Your task to perform on an android device: create a new album in the google photos Image 0: 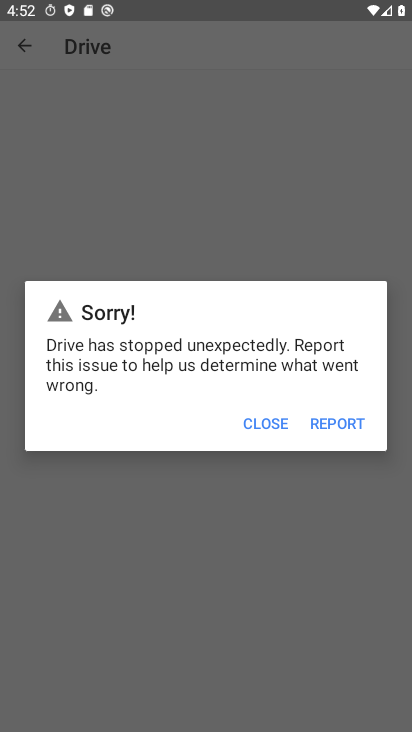
Step 0: click (274, 415)
Your task to perform on an android device: create a new album in the google photos Image 1: 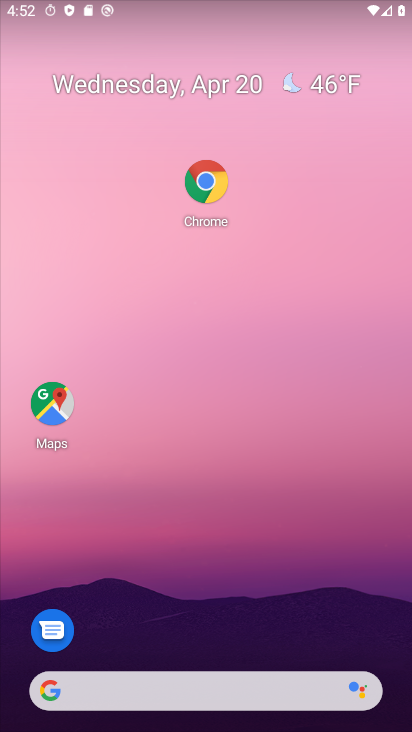
Step 1: press home button
Your task to perform on an android device: create a new album in the google photos Image 2: 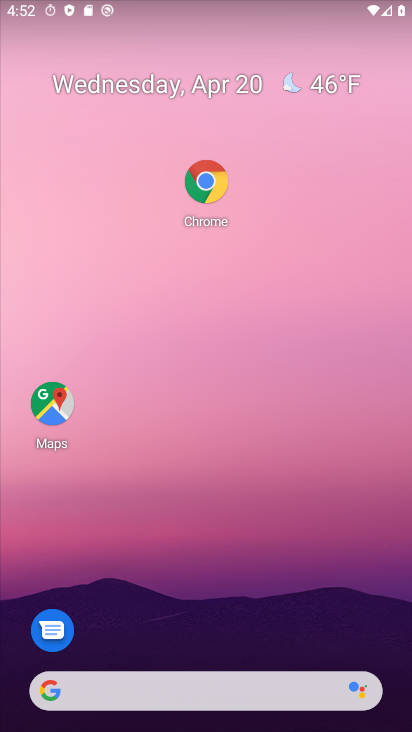
Step 2: drag from (235, 470) to (253, 376)
Your task to perform on an android device: create a new album in the google photos Image 3: 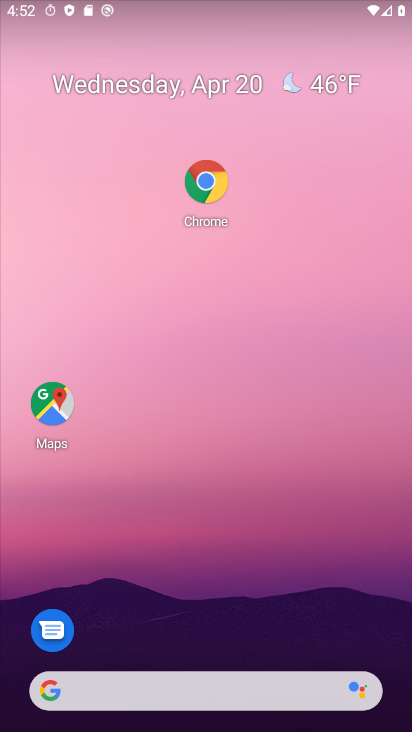
Step 3: drag from (234, 654) to (276, 453)
Your task to perform on an android device: create a new album in the google photos Image 4: 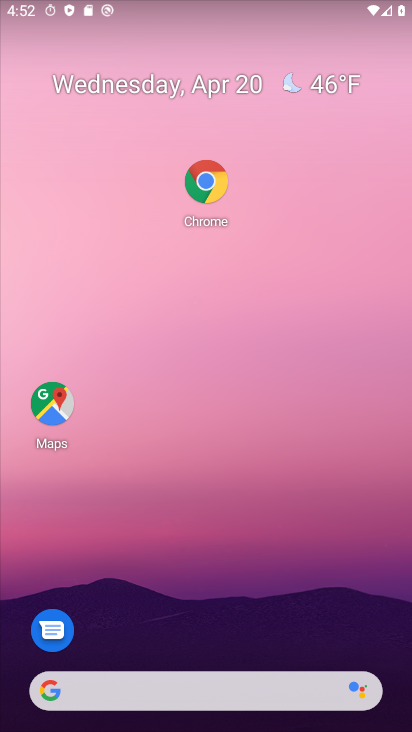
Step 4: drag from (104, 551) to (380, 223)
Your task to perform on an android device: create a new album in the google photos Image 5: 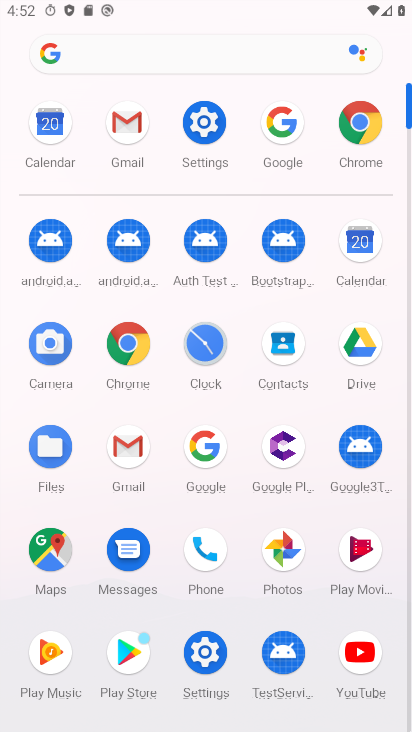
Step 5: click (295, 554)
Your task to perform on an android device: create a new album in the google photos Image 6: 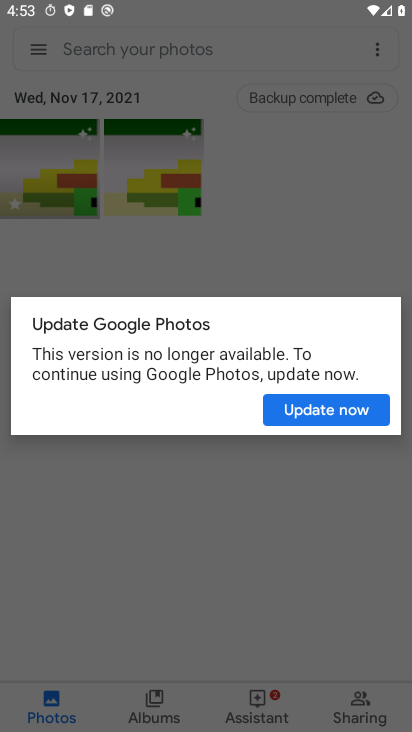
Step 6: click (337, 411)
Your task to perform on an android device: create a new album in the google photos Image 7: 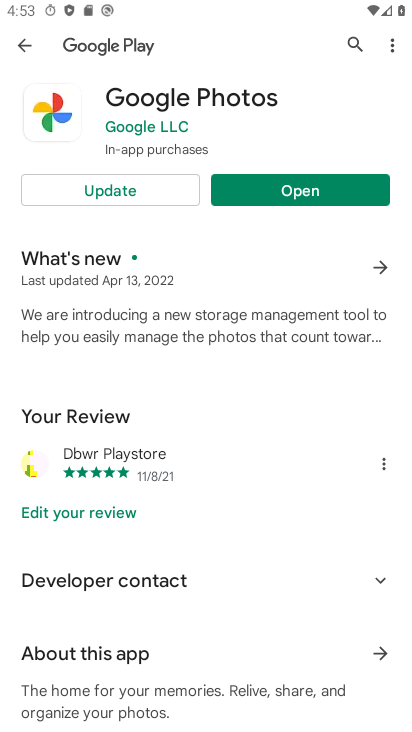
Step 7: click (126, 193)
Your task to perform on an android device: create a new album in the google photos Image 8: 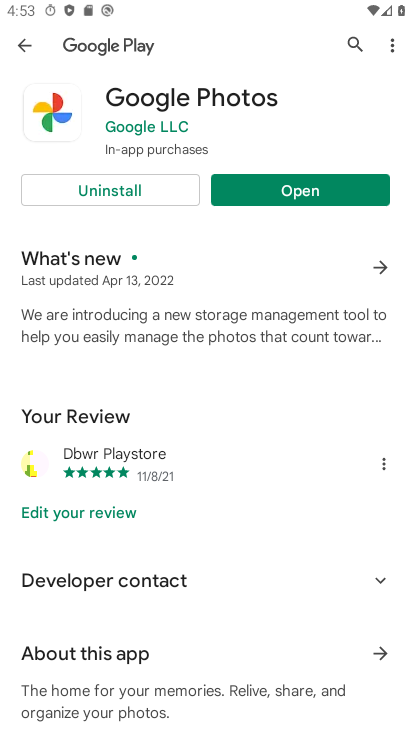
Step 8: click (304, 198)
Your task to perform on an android device: create a new album in the google photos Image 9: 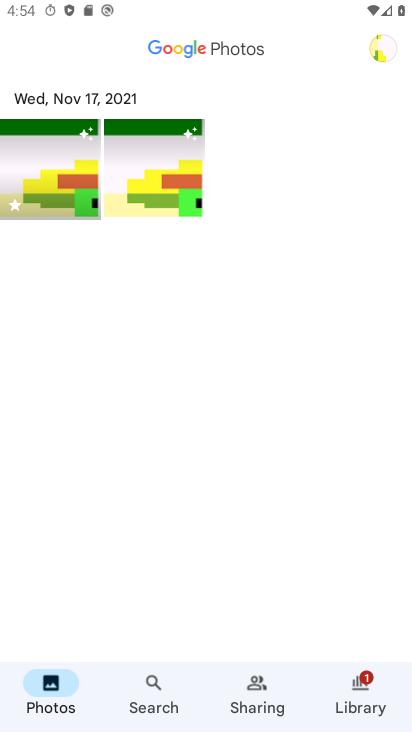
Step 9: click (361, 683)
Your task to perform on an android device: create a new album in the google photos Image 10: 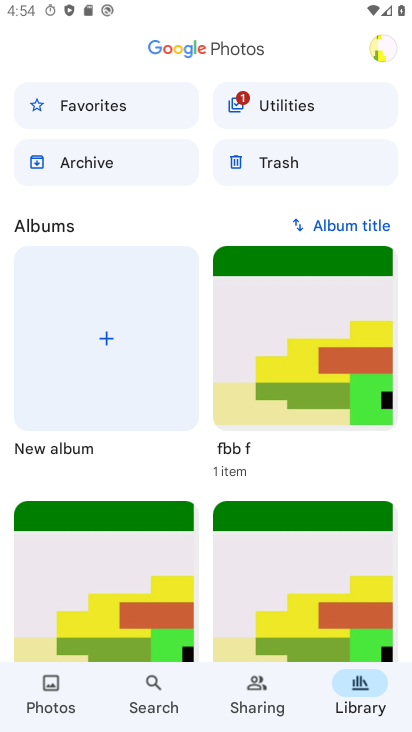
Step 10: drag from (193, 557) to (278, 304)
Your task to perform on an android device: create a new album in the google photos Image 11: 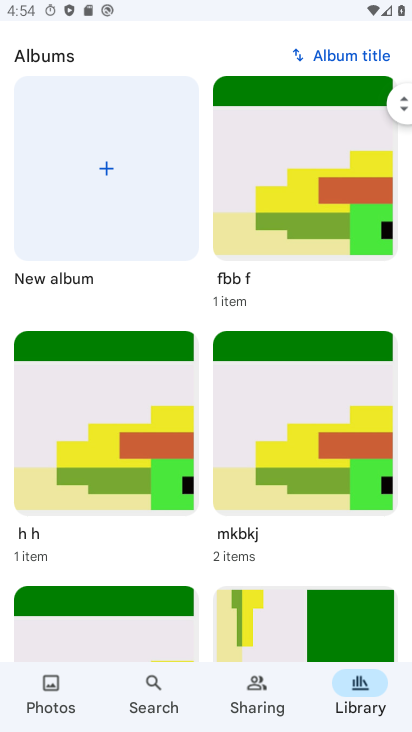
Step 11: click (83, 171)
Your task to perform on an android device: create a new album in the google photos Image 12: 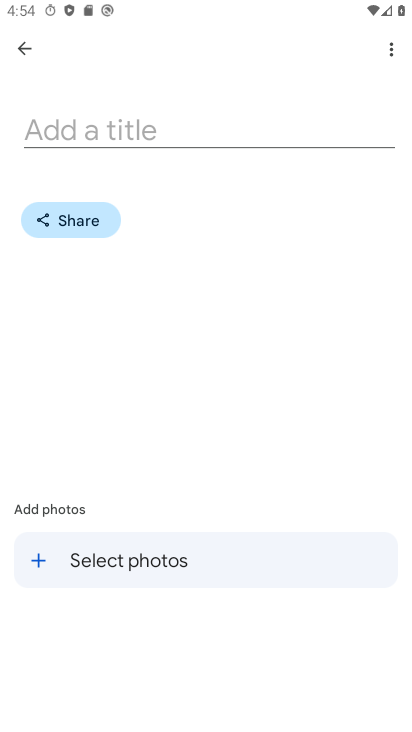
Step 12: click (92, 122)
Your task to perform on an android device: create a new album in the google photos Image 13: 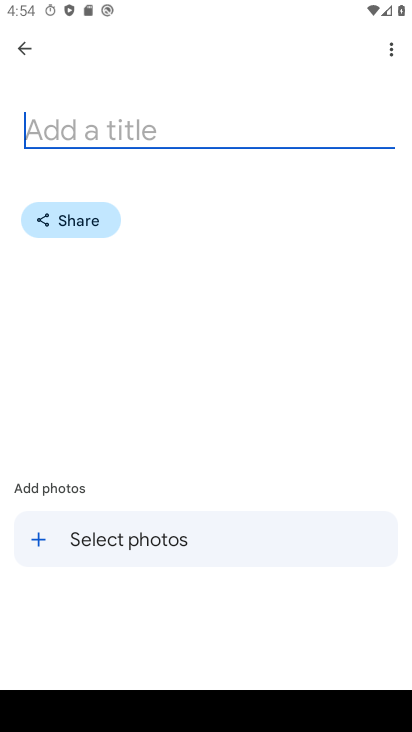
Step 13: type "123"
Your task to perform on an android device: create a new album in the google photos Image 14: 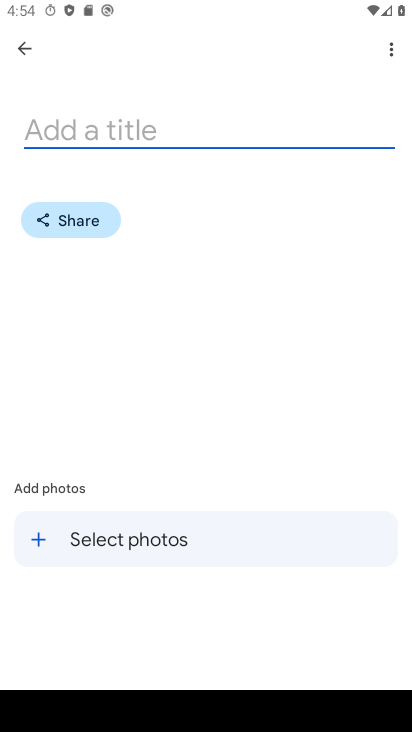
Step 14: click (159, 549)
Your task to perform on an android device: create a new album in the google photos Image 15: 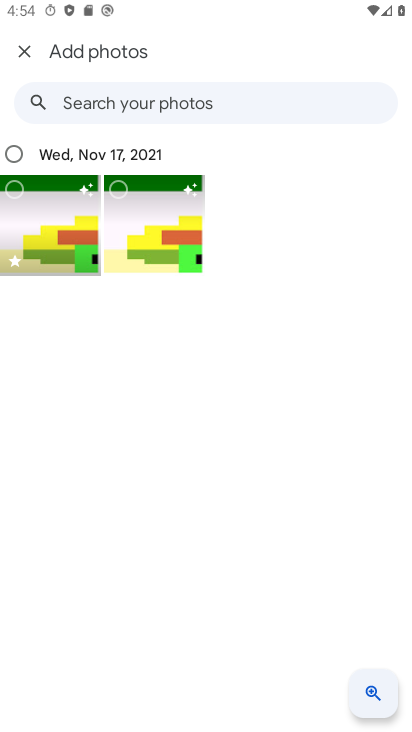
Step 15: click (13, 150)
Your task to perform on an android device: create a new album in the google photos Image 16: 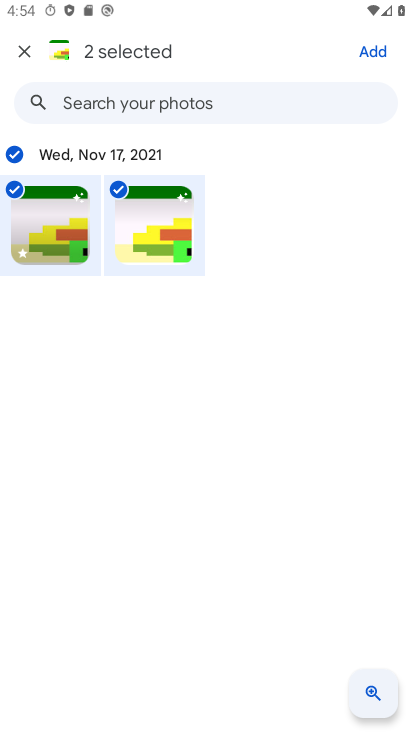
Step 16: click (387, 50)
Your task to perform on an android device: create a new album in the google photos Image 17: 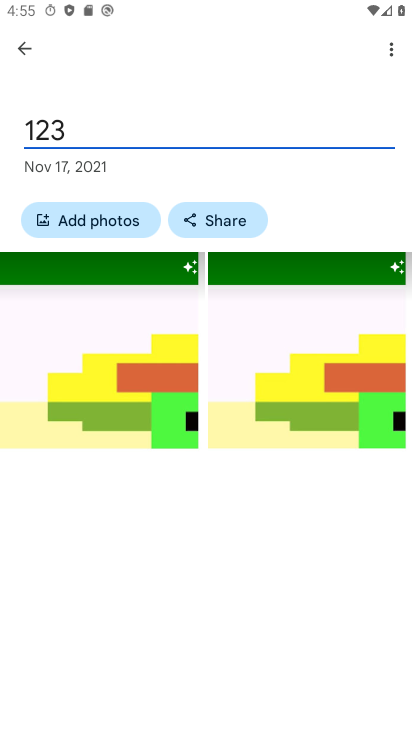
Step 17: click (95, 215)
Your task to perform on an android device: create a new album in the google photos Image 18: 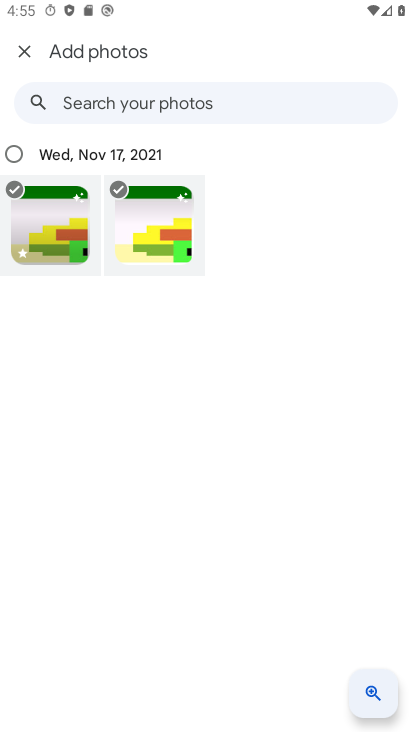
Step 18: click (12, 148)
Your task to perform on an android device: create a new album in the google photos Image 19: 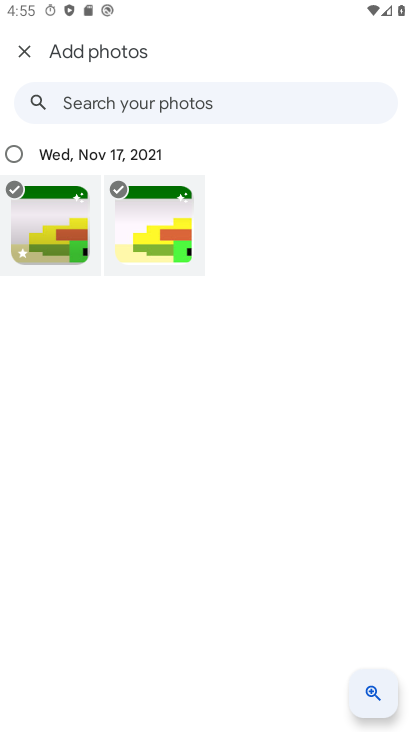
Step 19: click (12, 147)
Your task to perform on an android device: create a new album in the google photos Image 20: 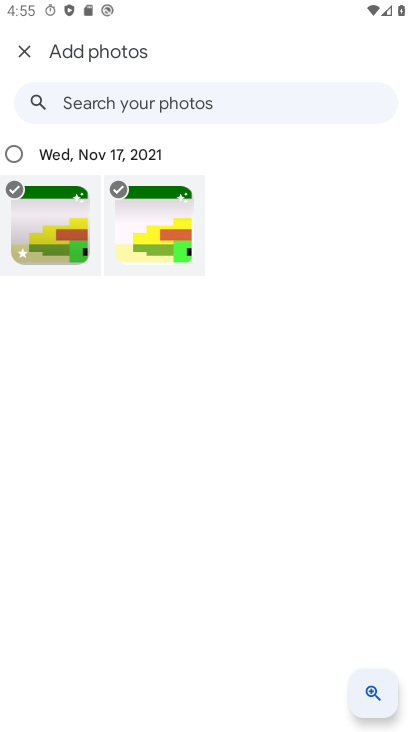
Step 20: click (22, 42)
Your task to perform on an android device: create a new album in the google photos Image 21: 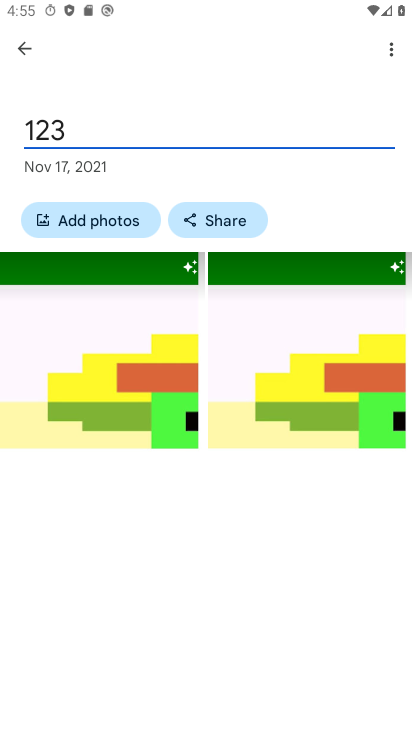
Step 21: task complete